Your task to perform on an android device: Go to Wikipedia Image 0: 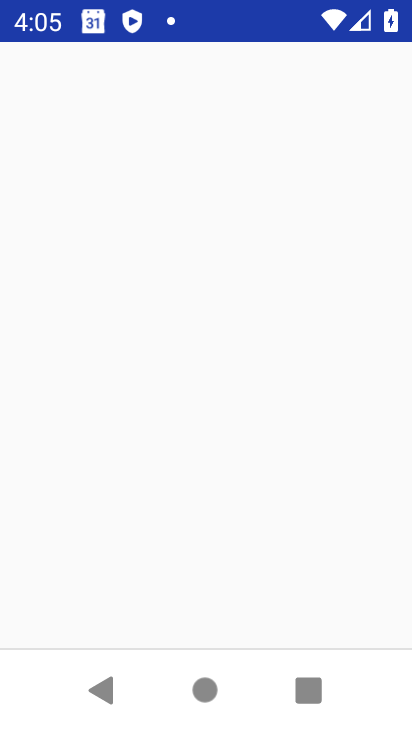
Step 0: press home button
Your task to perform on an android device: Go to Wikipedia Image 1: 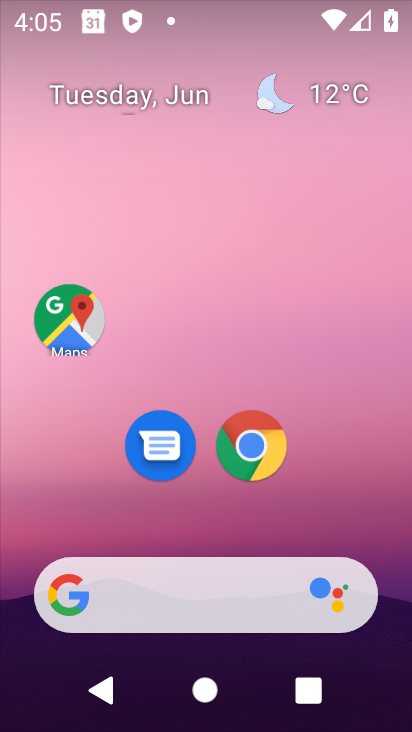
Step 1: drag from (298, 551) to (381, 39)
Your task to perform on an android device: Go to Wikipedia Image 2: 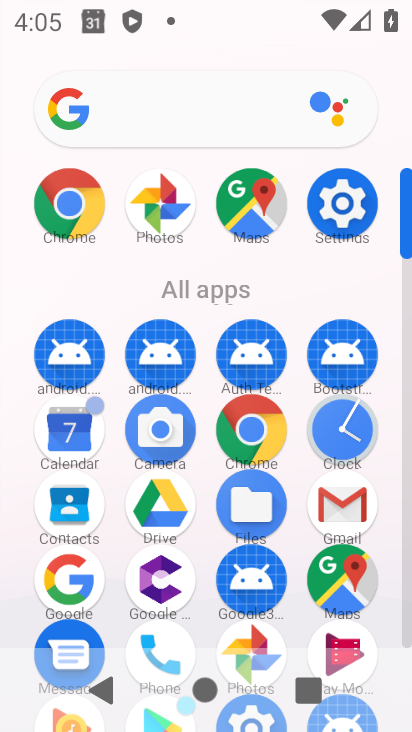
Step 2: click (55, 195)
Your task to perform on an android device: Go to Wikipedia Image 3: 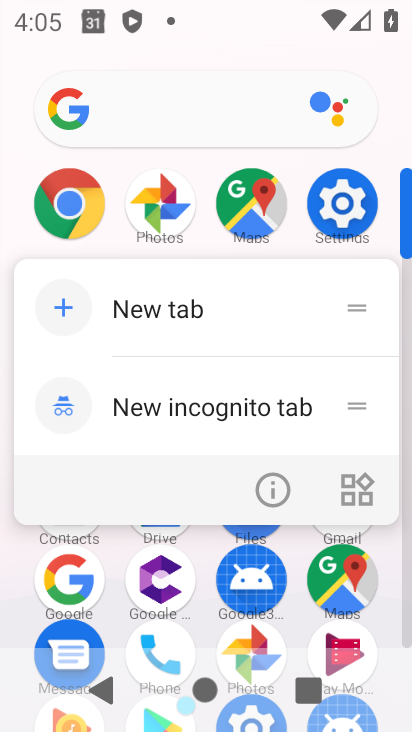
Step 3: click (55, 192)
Your task to perform on an android device: Go to Wikipedia Image 4: 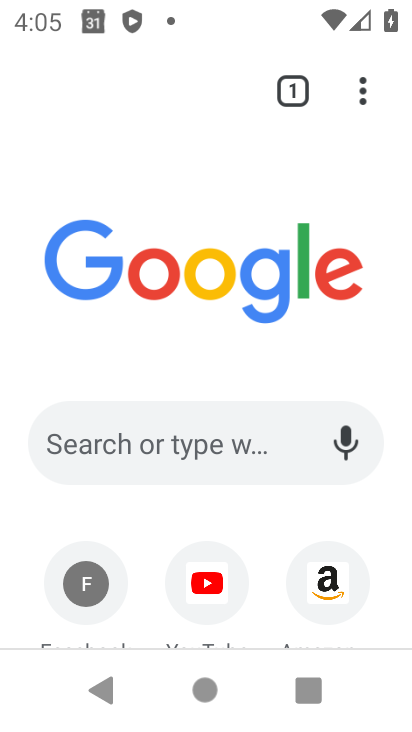
Step 4: drag from (285, 465) to (362, 106)
Your task to perform on an android device: Go to Wikipedia Image 5: 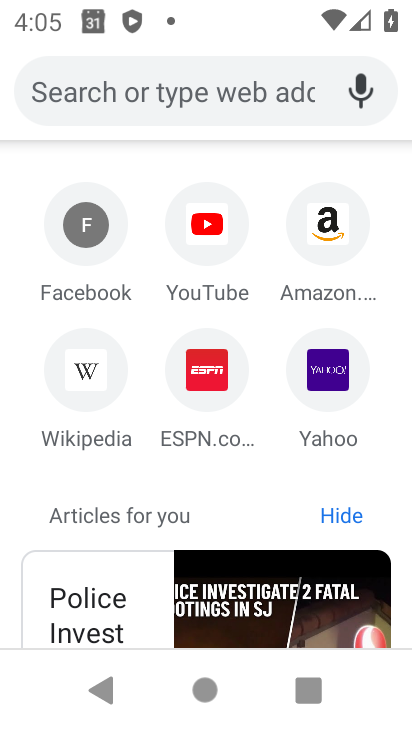
Step 5: click (98, 363)
Your task to perform on an android device: Go to Wikipedia Image 6: 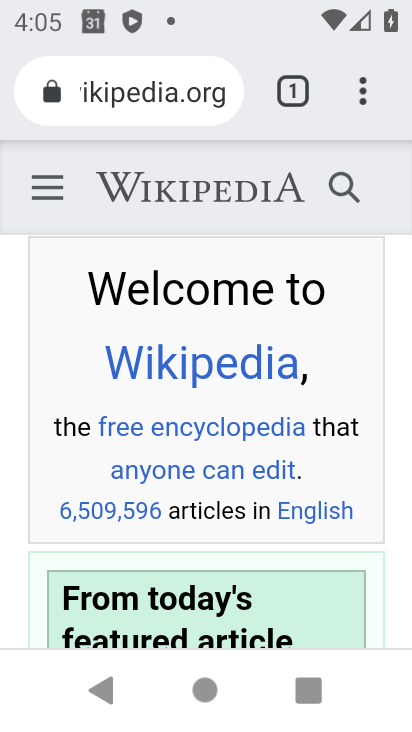
Step 6: task complete